Your task to perform on an android device: empty trash in google photos Image 0: 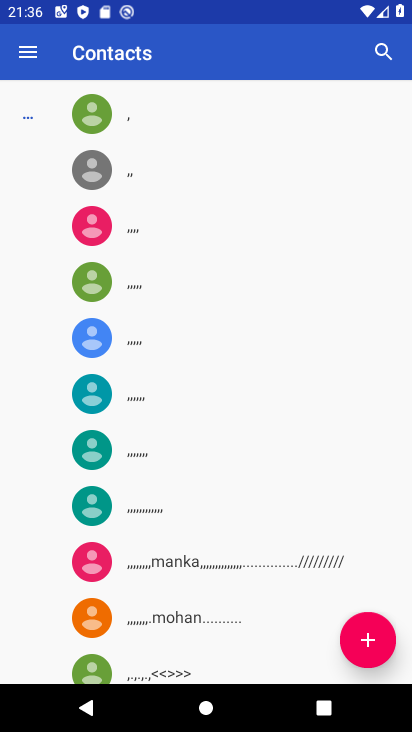
Step 0: press home button
Your task to perform on an android device: empty trash in google photos Image 1: 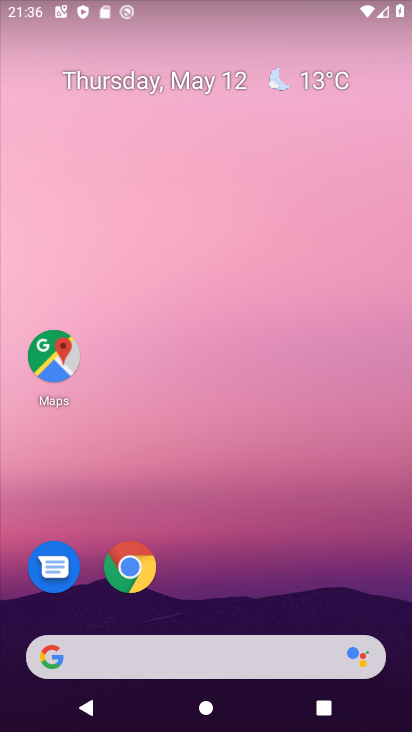
Step 1: drag from (216, 613) to (239, 31)
Your task to perform on an android device: empty trash in google photos Image 2: 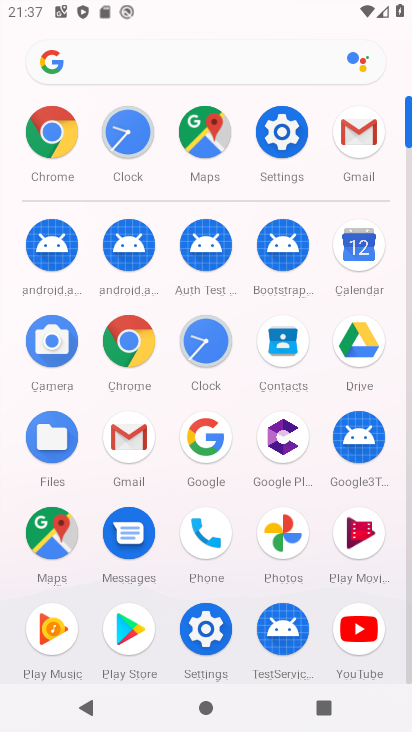
Step 2: click (281, 525)
Your task to perform on an android device: empty trash in google photos Image 3: 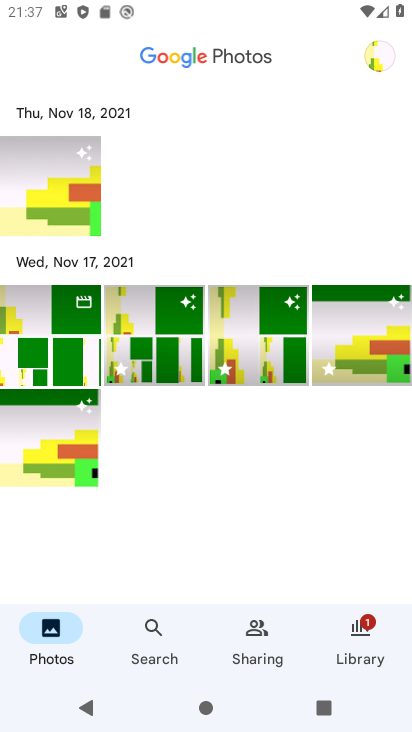
Step 3: click (375, 49)
Your task to perform on an android device: empty trash in google photos Image 4: 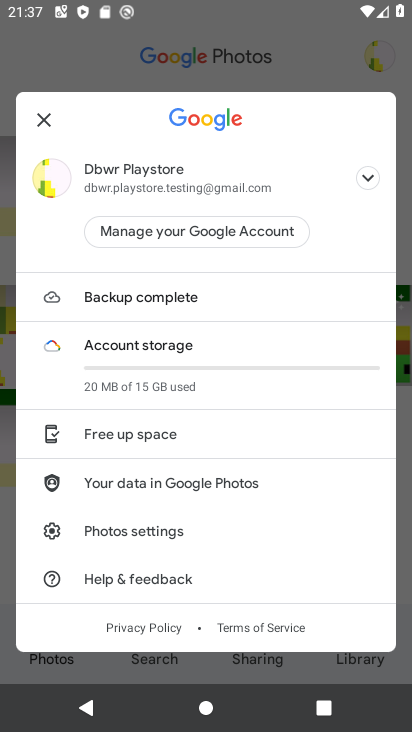
Step 4: click (302, 48)
Your task to perform on an android device: empty trash in google photos Image 5: 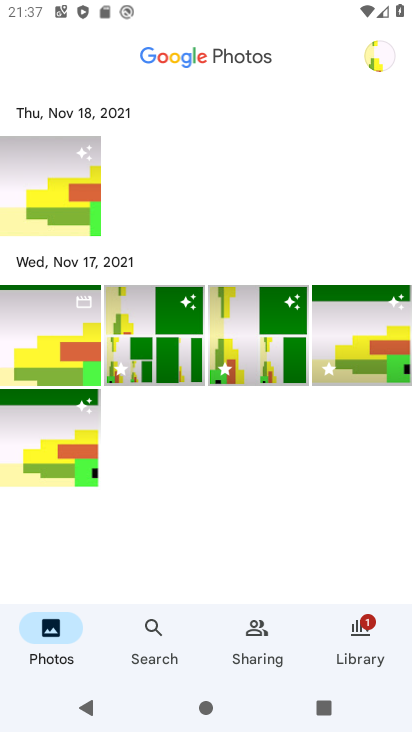
Step 5: click (370, 632)
Your task to perform on an android device: empty trash in google photos Image 6: 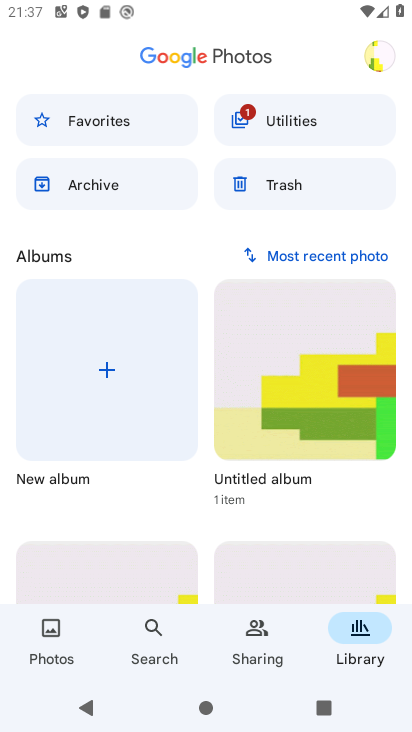
Step 6: click (251, 187)
Your task to perform on an android device: empty trash in google photos Image 7: 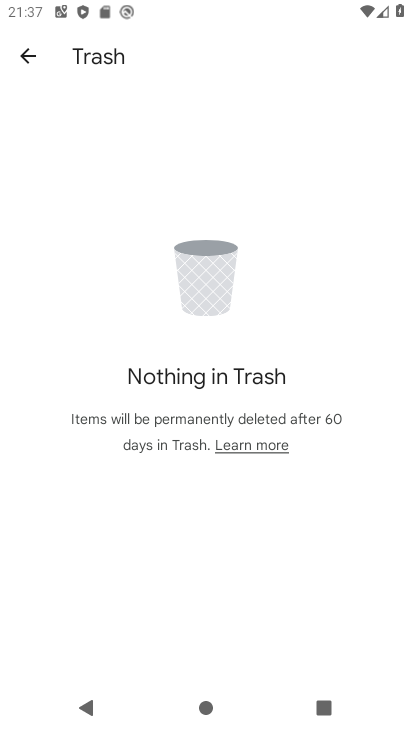
Step 7: task complete